Your task to perform on an android device: turn smart compose on in the gmail app Image 0: 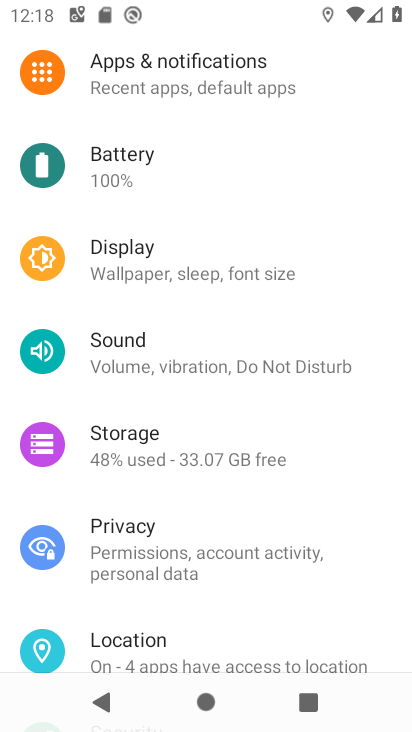
Step 0: press home button
Your task to perform on an android device: turn smart compose on in the gmail app Image 1: 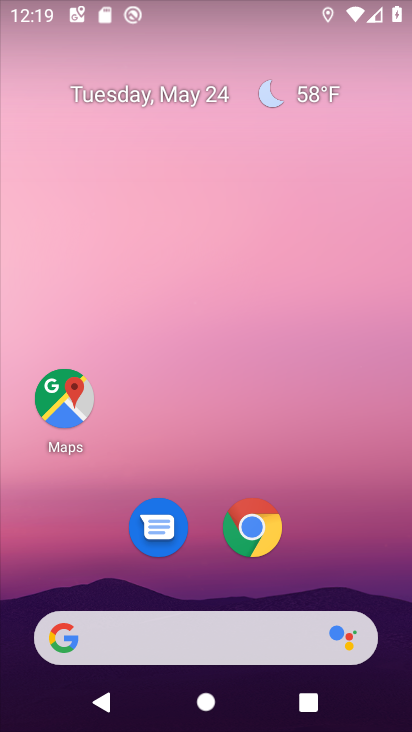
Step 1: drag from (396, 591) to (327, 103)
Your task to perform on an android device: turn smart compose on in the gmail app Image 2: 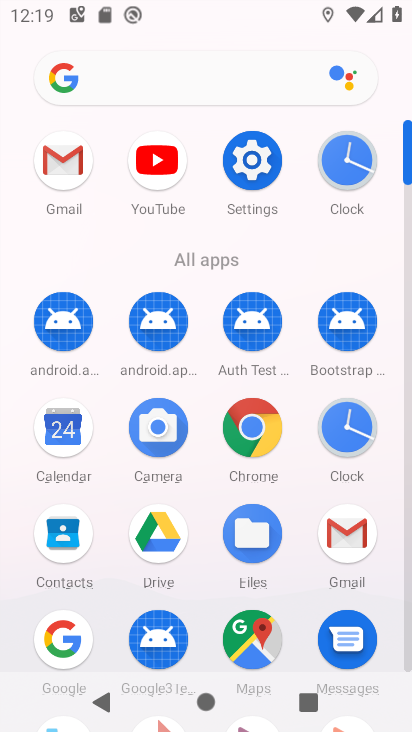
Step 2: click (80, 163)
Your task to perform on an android device: turn smart compose on in the gmail app Image 3: 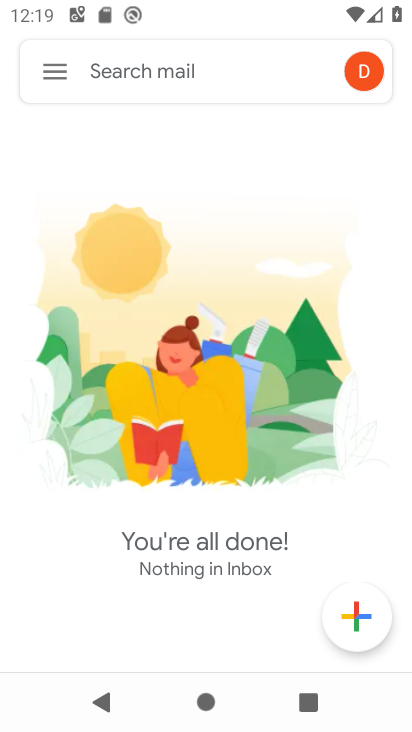
Step 3: click (57, 69)
Your task to perform on an android device: turn smart compose on in the gmail app Image 4: 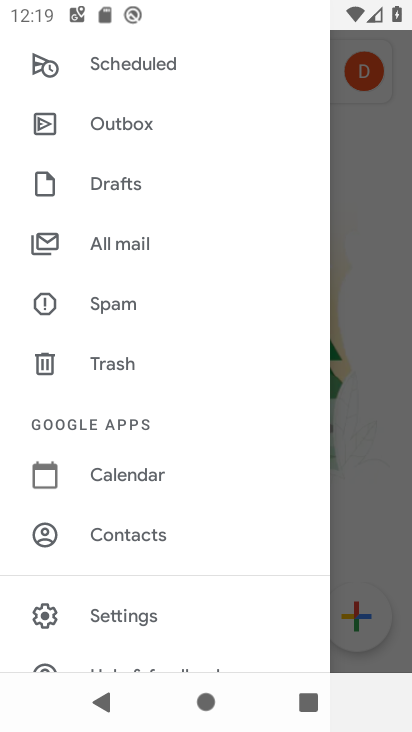
Step 4: click (162, 618)
Your task to perform on an android device: turn smart compose on in the gmail app Image 5: 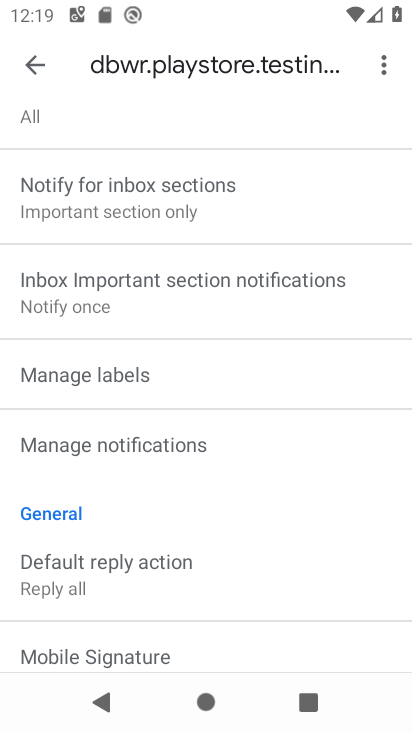
Step 5: task complete